Your task to perform on an android device: Clear all items from cart on amazon.com. Image 0: 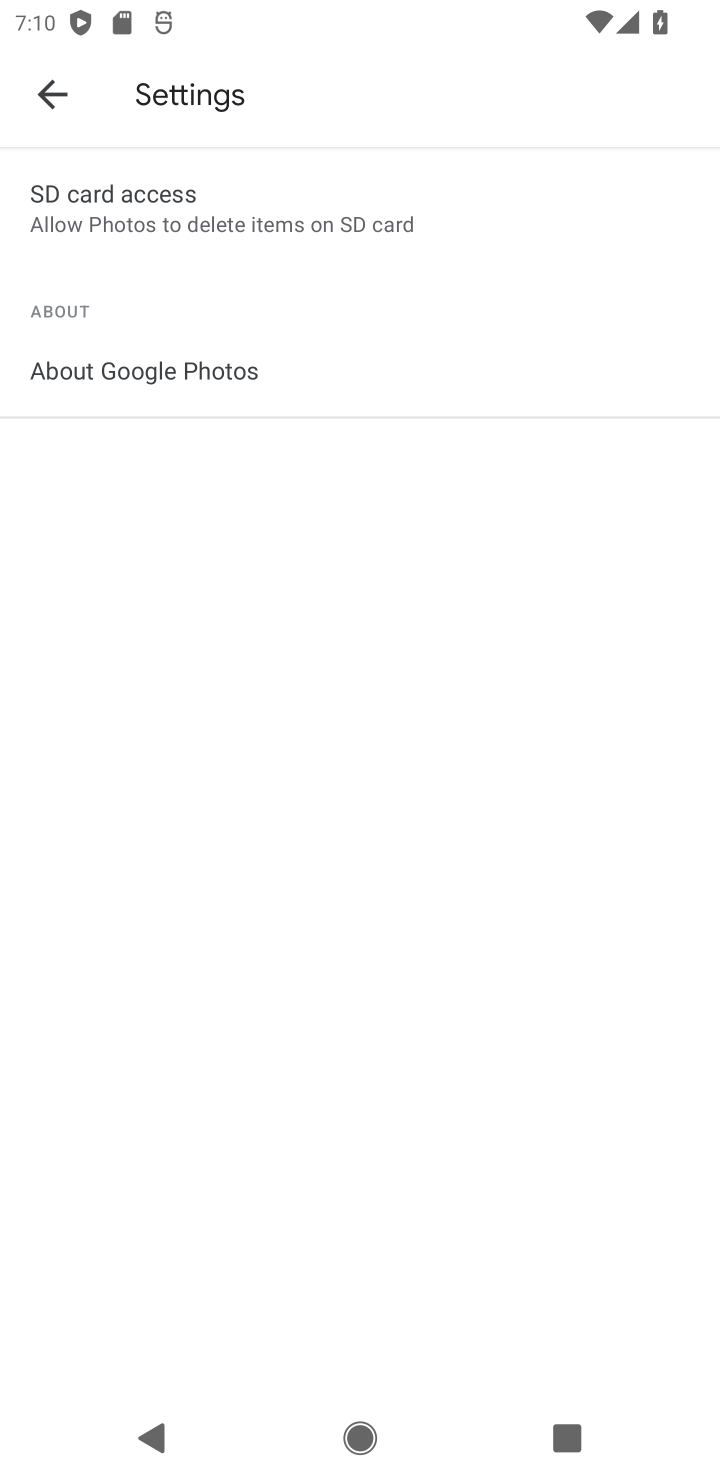
Step 0: press home button
Your task to perform on an android device: Clear all items from cart on amazon.com. Image 1: 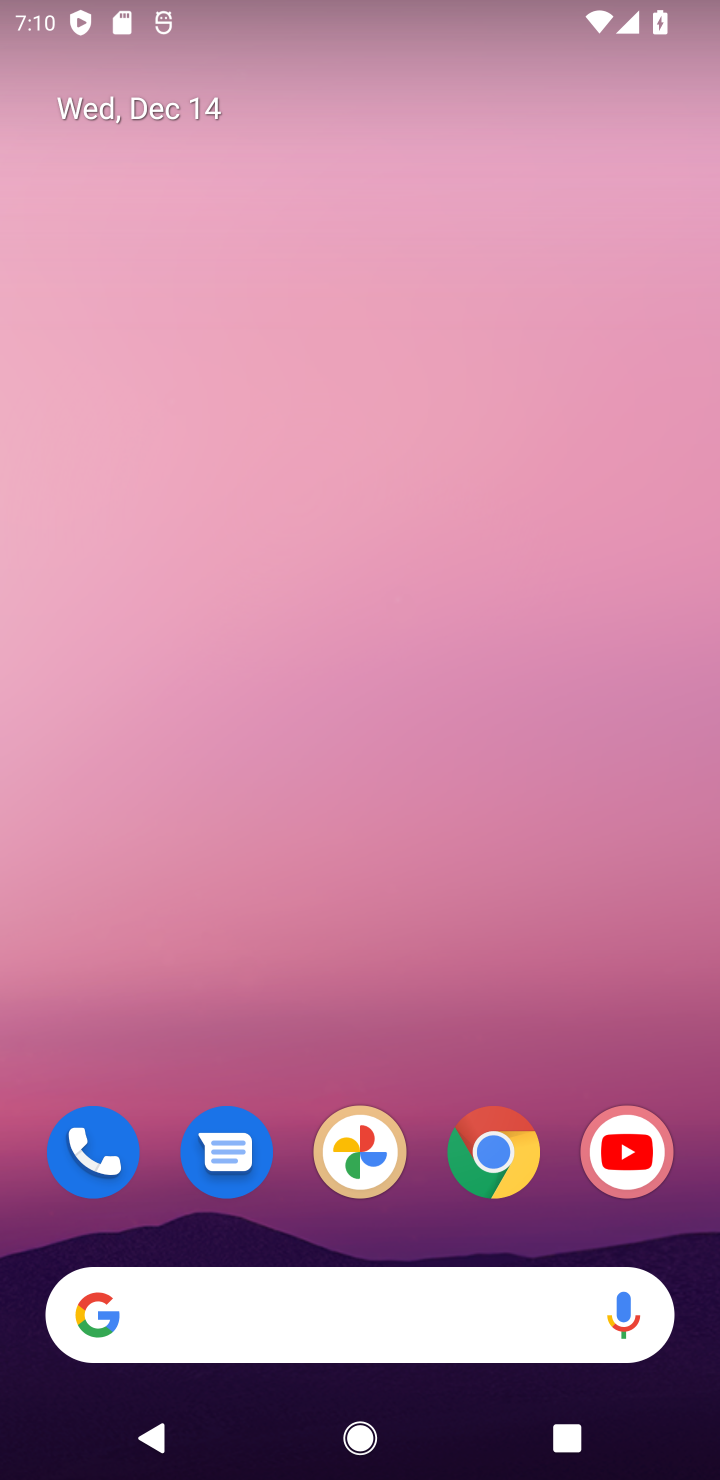
Step 1: click (495, 1152)
Your task to perform on an android device: Clear all items from cart on amazon.com. Image 2: 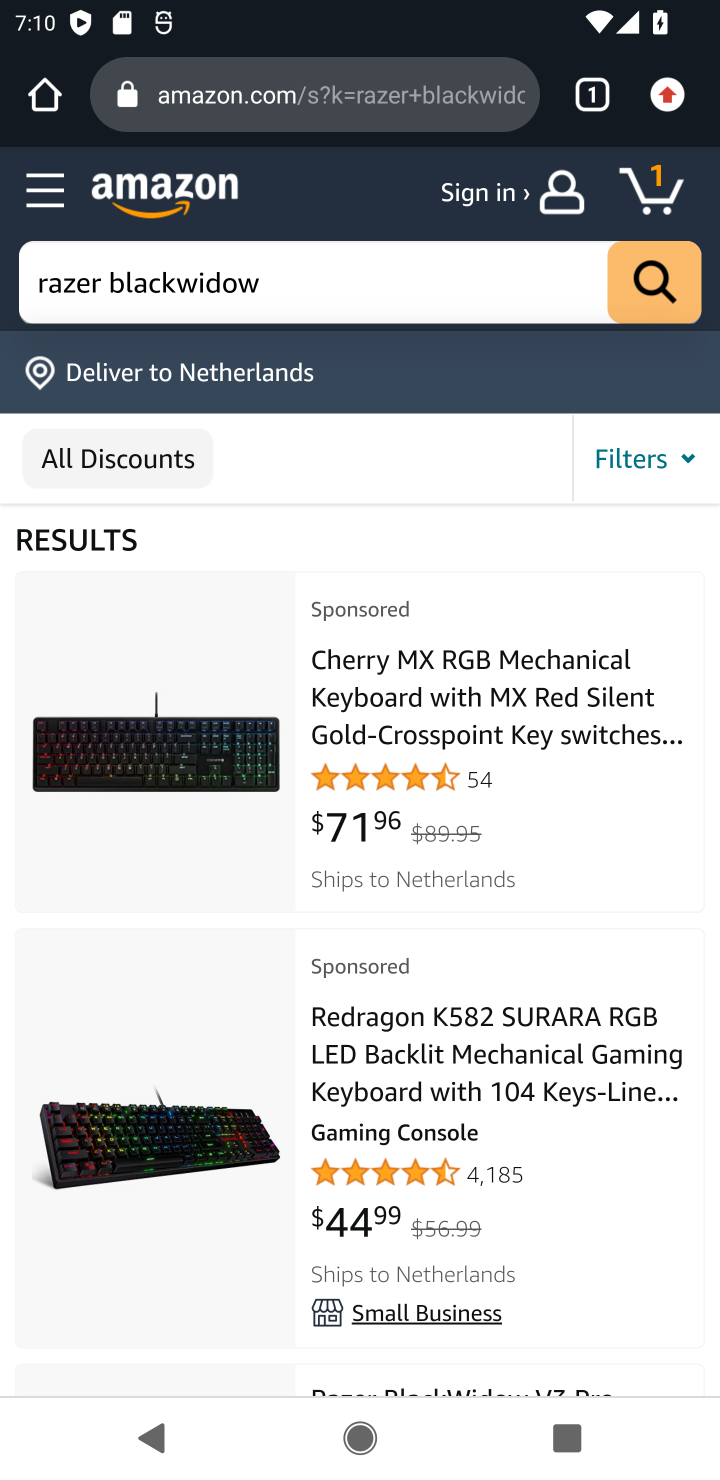
Step 2: click (658, 195)
Your task to perform on an android device: Clear all items from cart on amazon.com. Image 3: 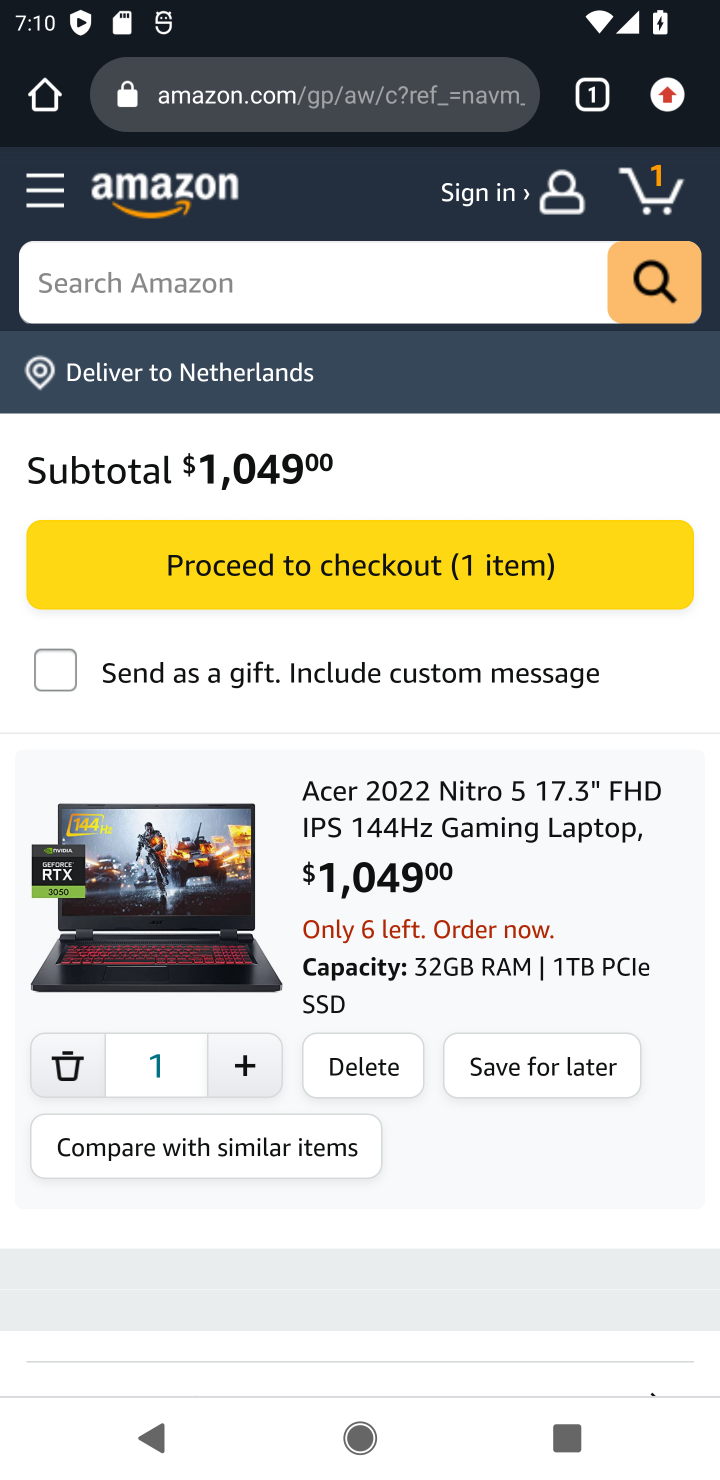
Step 3: click (389, 1068)
Your task to perform on an android device: Clear all items from cart on amazon.com. Image 4: 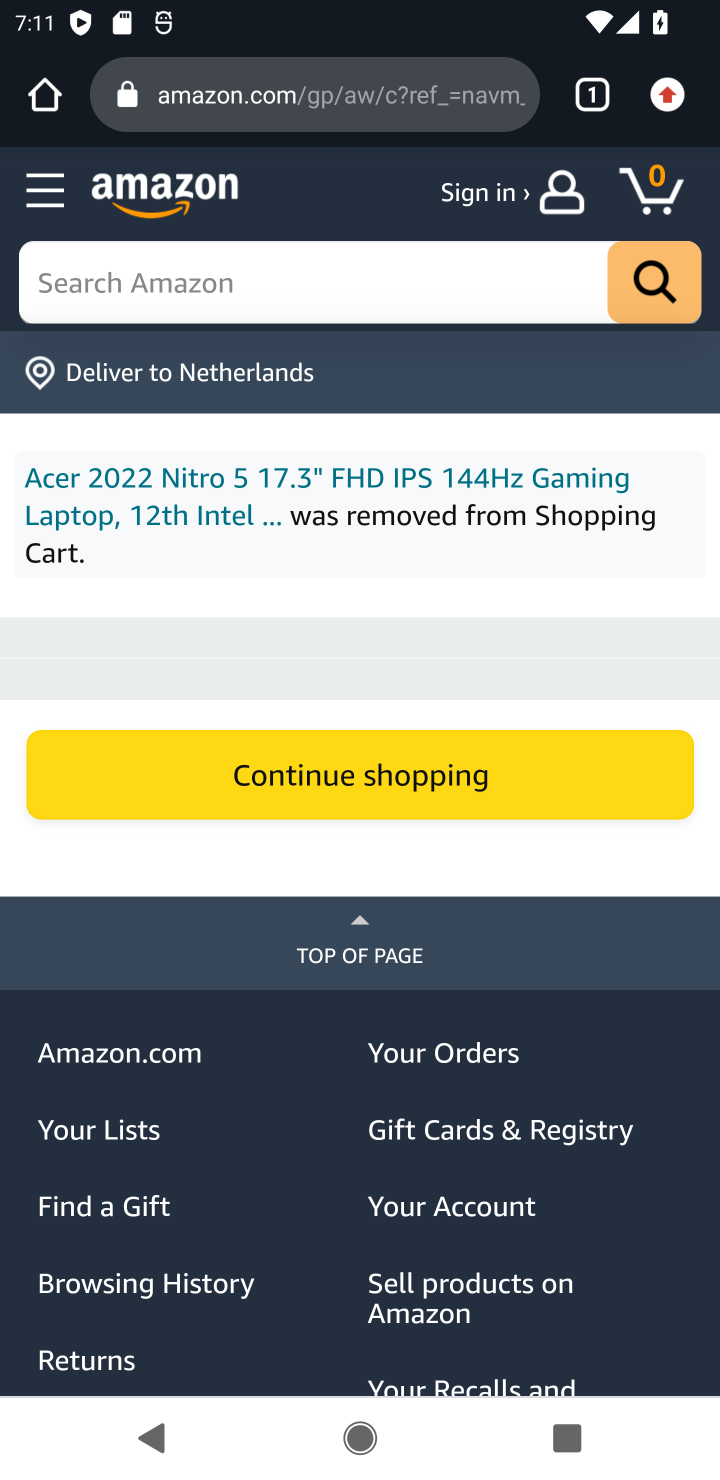
Step 4: task complete